Your task to perform on an android device: toggle notification dots Image 0: 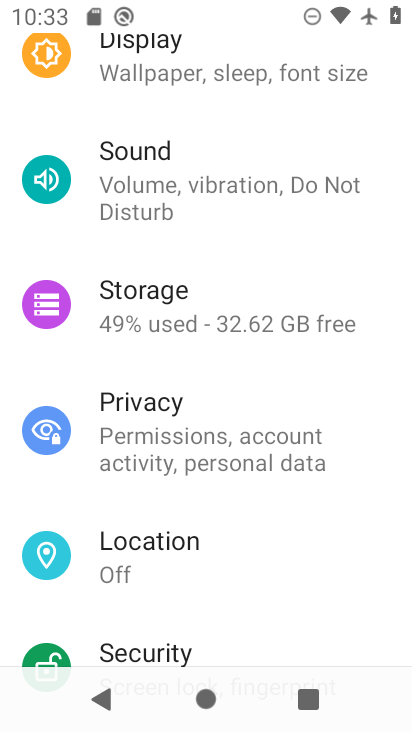
Step 0: drag from (214, 123) to (217, 445)
Your task to perform on an android device: toggle notification dots Image 1: 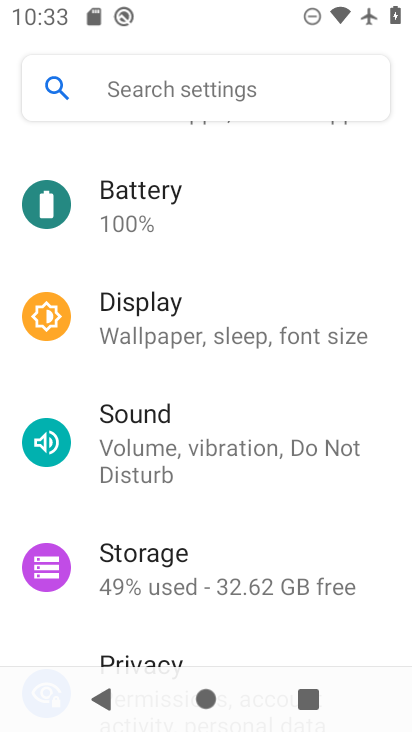
Step 1: drag from (256, 534) to (268, 134)
Your task to perform on an android device: toggle notification dots Image 2: 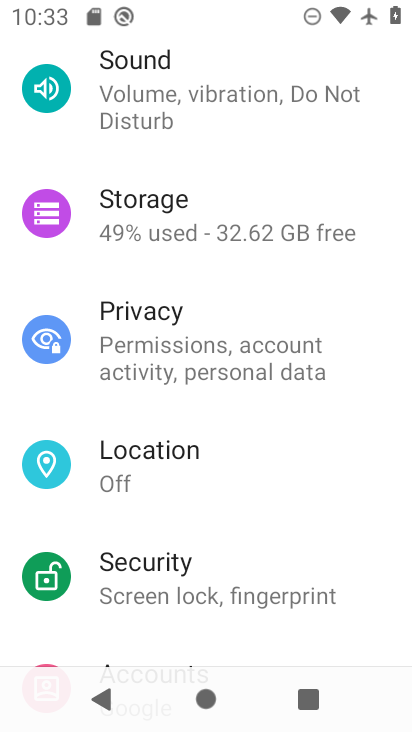
Step 2: drag from (261, 513) to (257, 132)
Your task to perform on an android device: toggle notification dots Image 3: 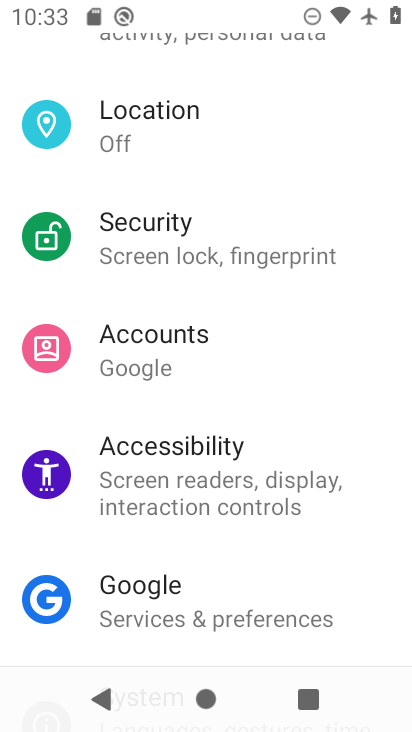
Step 3: drag from (277, 541) to (298, 148)
Your task to perform on an android device: toggle notification dots Image 4: 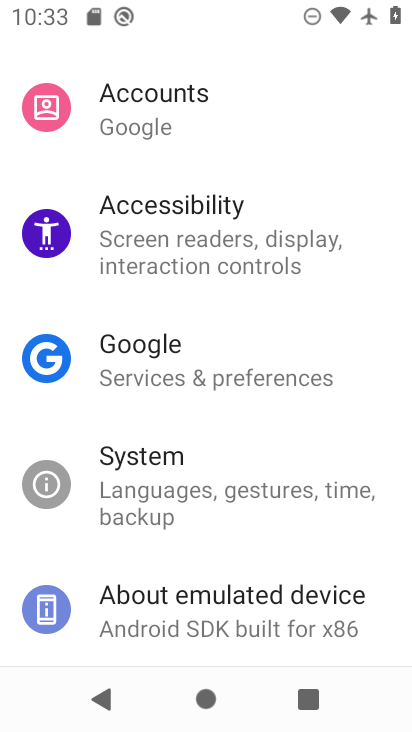
Step 4: drag from (279, 183) to (264, 561)
Your task to perform on an android device: toggle notification dots Image 5: 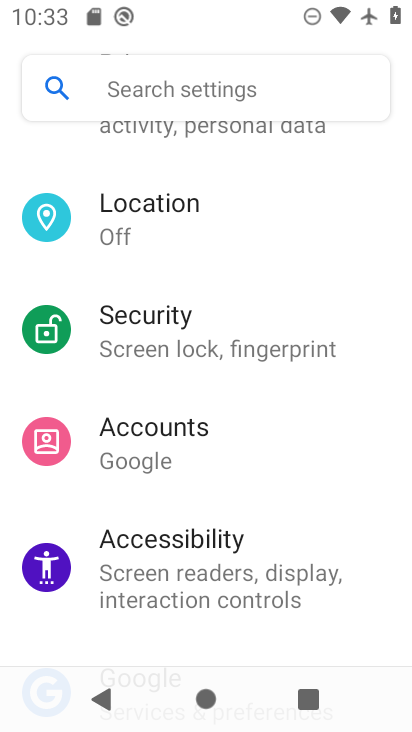
Step 5: drag from (247, 252) to (260, 529)
Your task to perform on an android device: toggle notification dots Image 6: 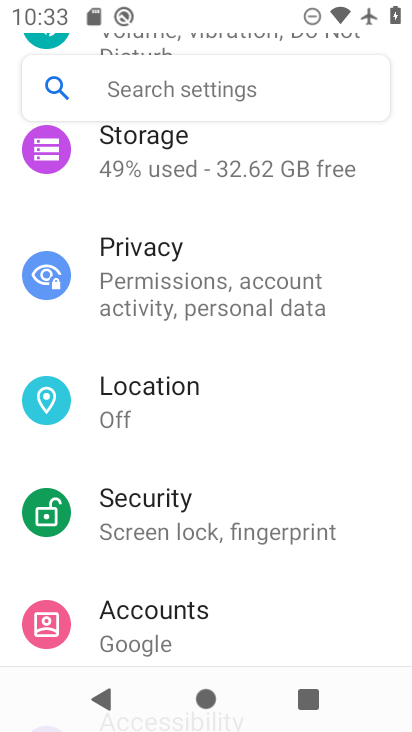
Step 6: drag from (275, 185) to (283, 525)
Your task to perform on an android device: toggle notification dots Image 7: 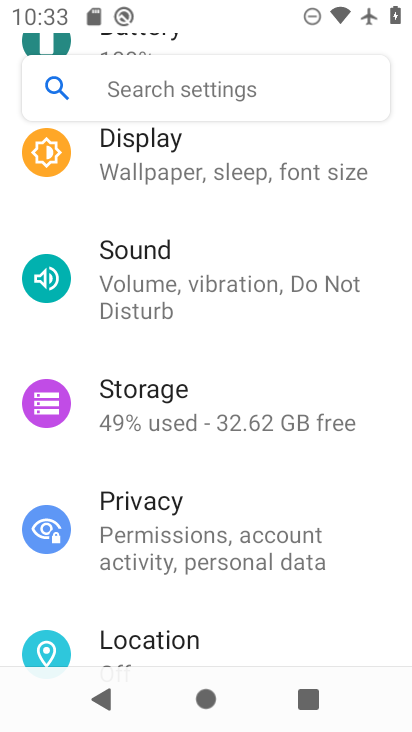
Step 7: drag from (252, 223) to (271, 539)
Your task to perform on an android device: toggle notification dots Image 8: 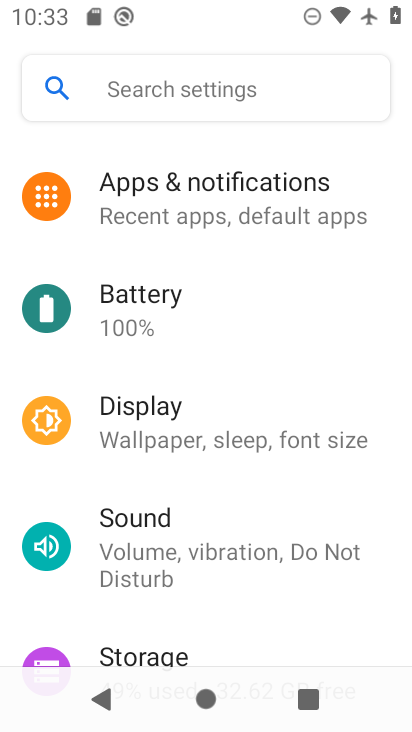
Step 8: click (255, 194)
Your task to perform on an android device: toggle notification dots Image 9: 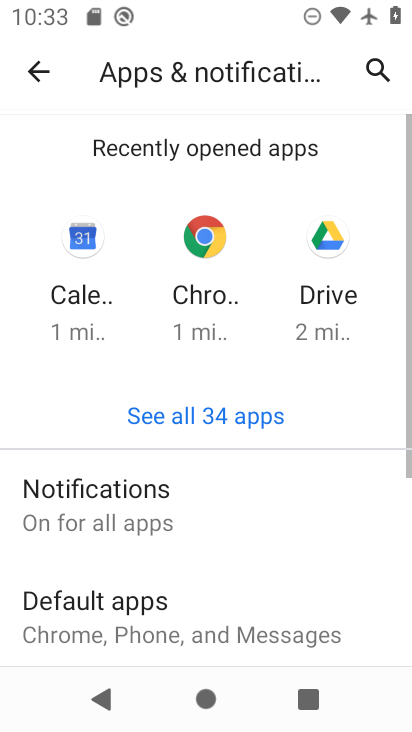
Step 9: drag from (246, 604) to (291, 152)
Your task to perform on an android device: toggle notification dots Image 10: 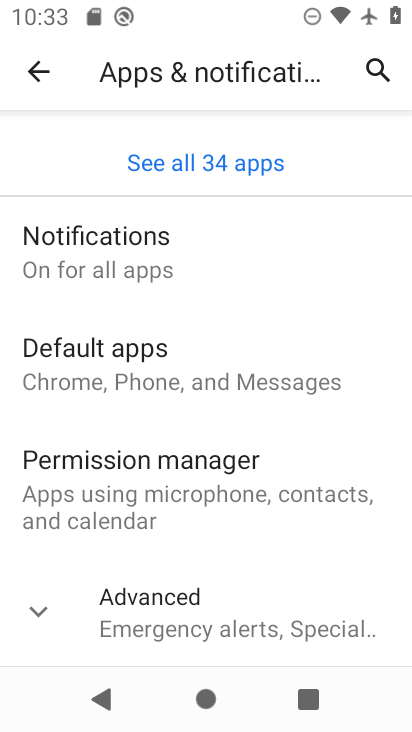
Step 10: click (48, 607)
Your task to perform on an android device: toggle notification dots Image 11: 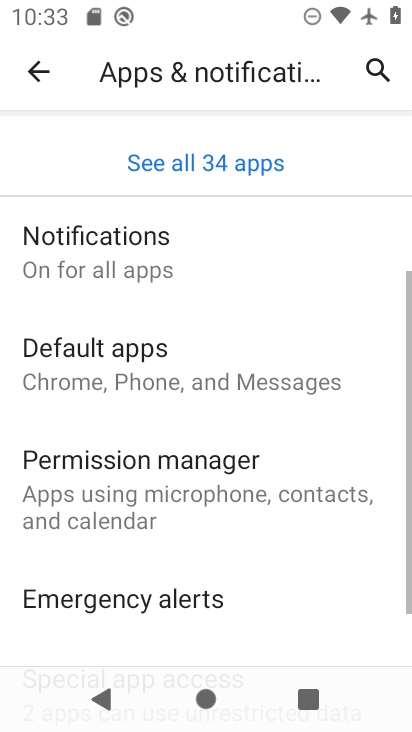
Step 11: click (194, 233)
Your task to perform on an android device: toggle notification dots Image 12: 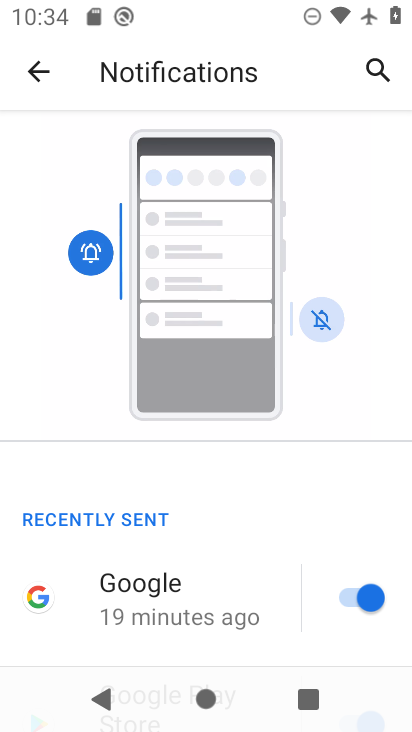
Step 12: drag from (247, 546) to (281, 162)
Your task to perform on an android device: toggle notification dots Image 13: 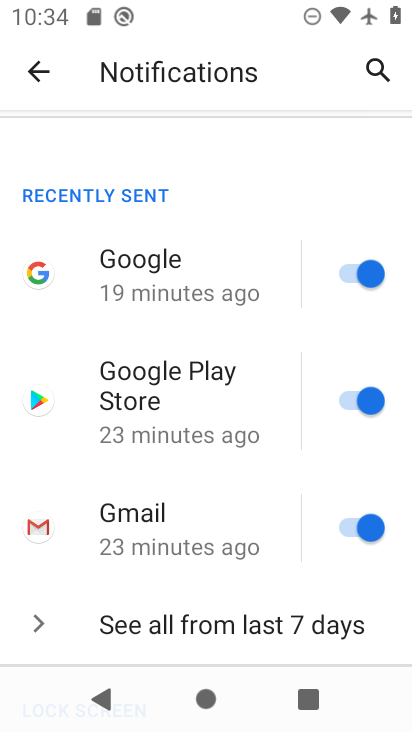
Step 13: drag from (235, 550) to (228, 152)
Your task to perform on an android device: toggle notification dots Image 14: 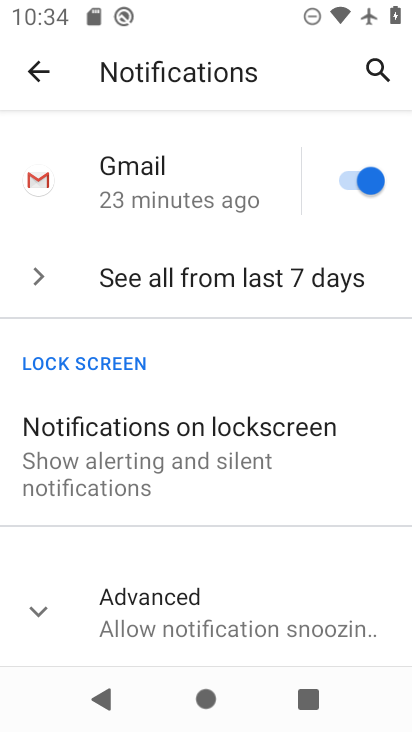
Step 14: drag from (223, 610) to (225, 254)
Your task to perform on an android device: toggle notification dots Image 15: 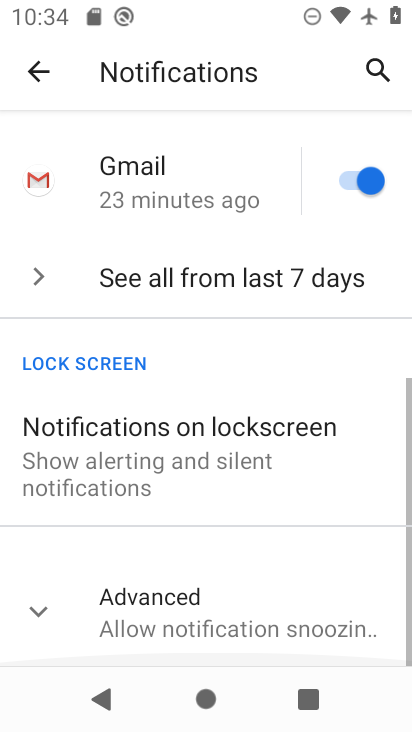
Step 15: click (12, 638)
Your task to perform on an android device: toggle notification dots Image 16: 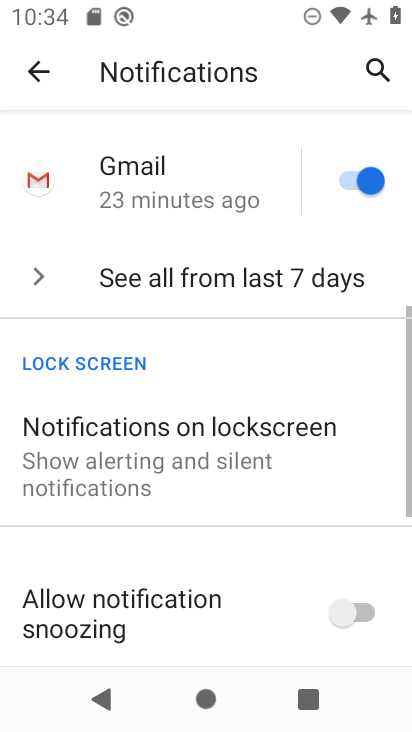
Step 16: drag from (225, 496) to (251, 140)
Your task to perform on an android device: toggle notification dots Image 17: 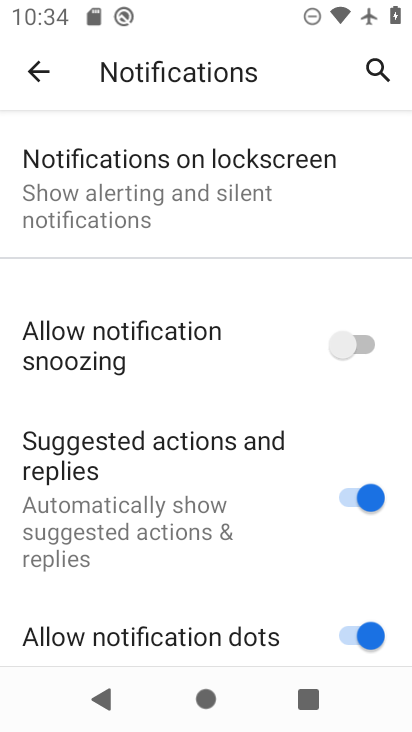
Step 17: drag from (216, 536) to (250, 245)
Your task to perform on an android device: toggle notification dots Image 18: 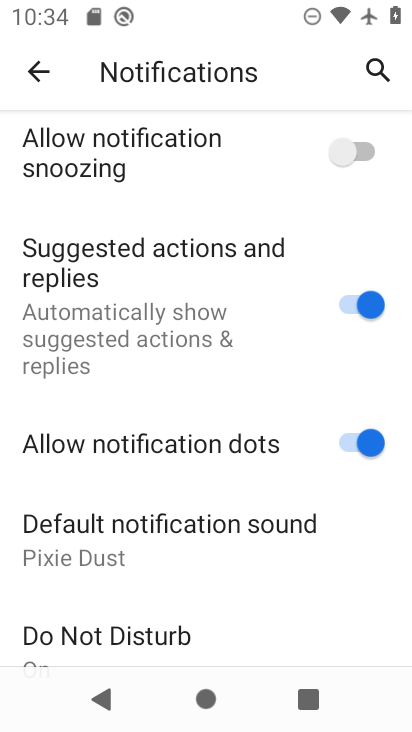
Step 18: click (376, 439)
Your task to perform on an android device: toggle notification dots Image 19: 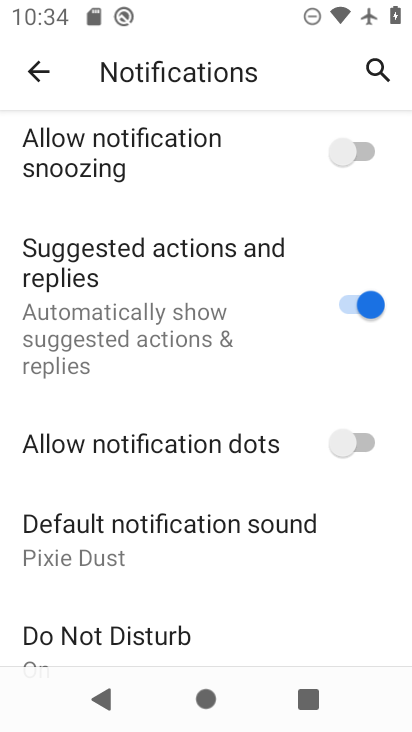
Step 19: task complete